Your task to perform on an android device: Open internet settings Image 0: 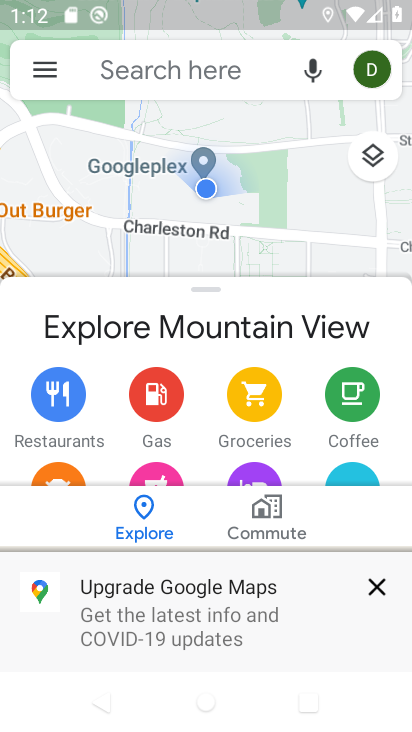
Step 0: press home button
Your task to perform on an android device: Open internet settings Image 1: 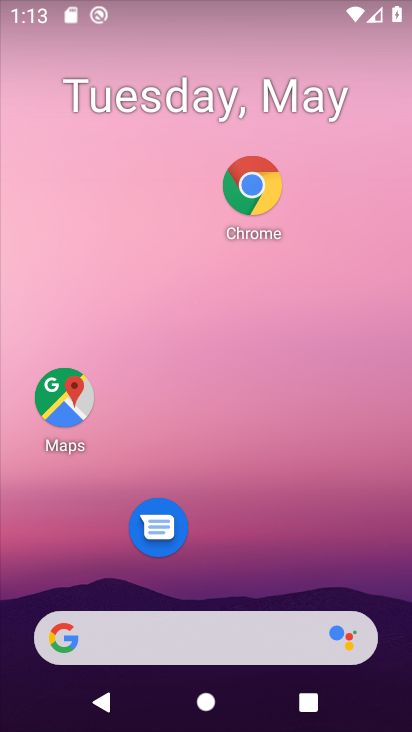
Step 1: drag from (231, 498) to (192, 110)
Your task to perform on an android device: Open internet settings Image 2: 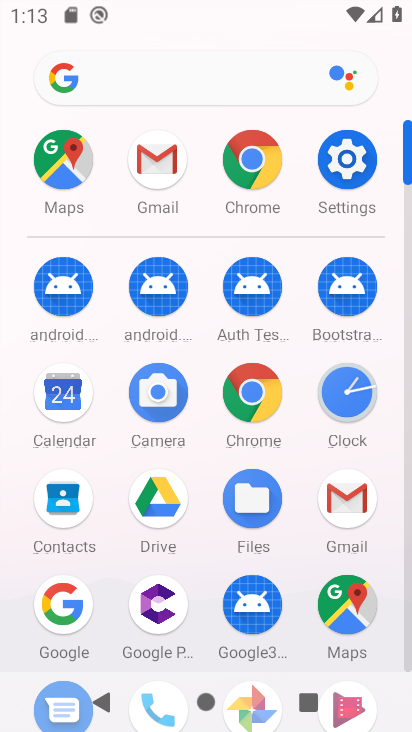
Step 2: click (344, 165)
Your task to perform on an android device: Open internet settings Image 3: 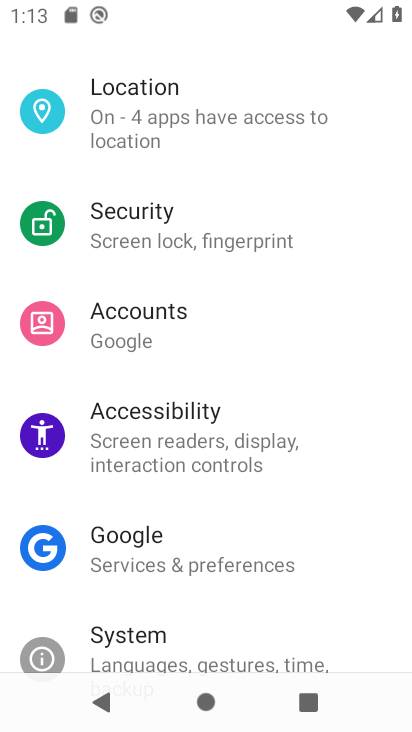
Step 3: drag from (185, 171) to (182, 708)
Your task to perform on an android device: Open internet settings Image 4: 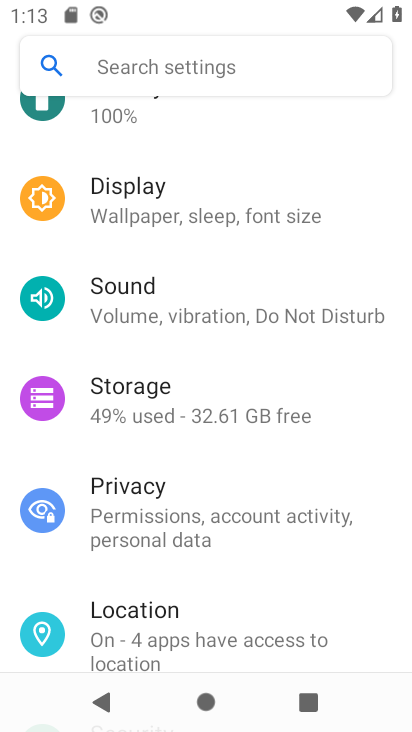
Step 4: drag from (172, 248) to (187, 476)
Your task to perform on an android device: Open internet settings Image 5: 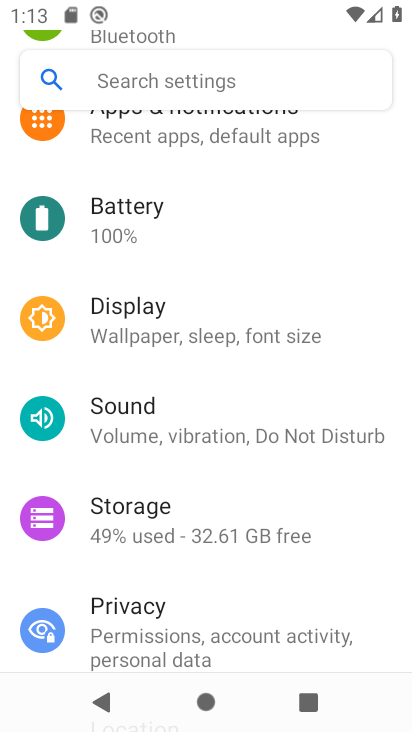
Step 5: drag from (153, 246) to (166, 579)
Your task to perform on an android device: Open internet settings Image 6: 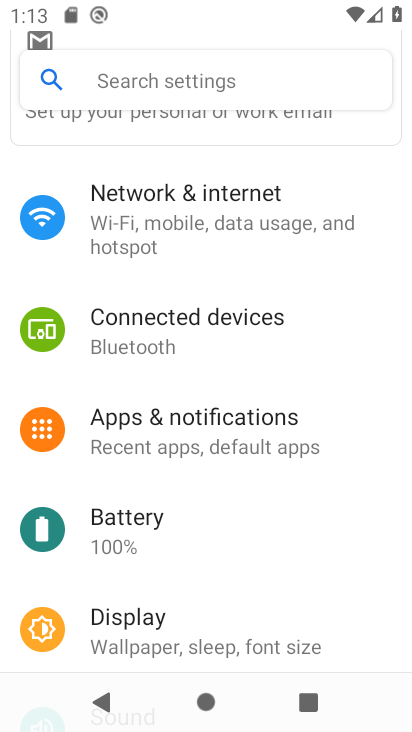
Step 6: click (175, 205)
Your task to perform on an android device: Open internet settings Image 7: 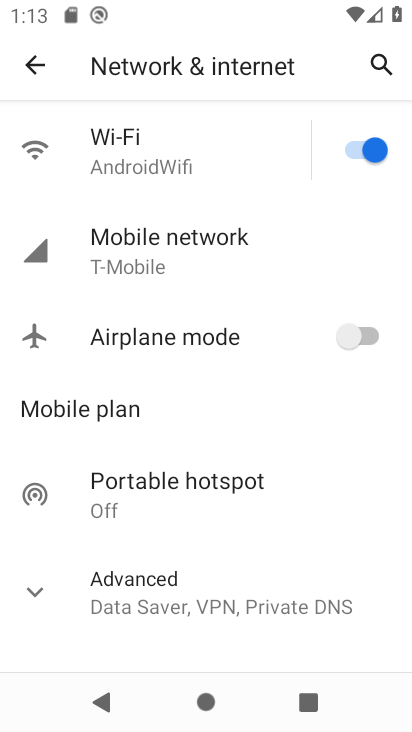
Step 7: click (183, 232)
Your task to perform on an android device: Open internet settings Image 8: 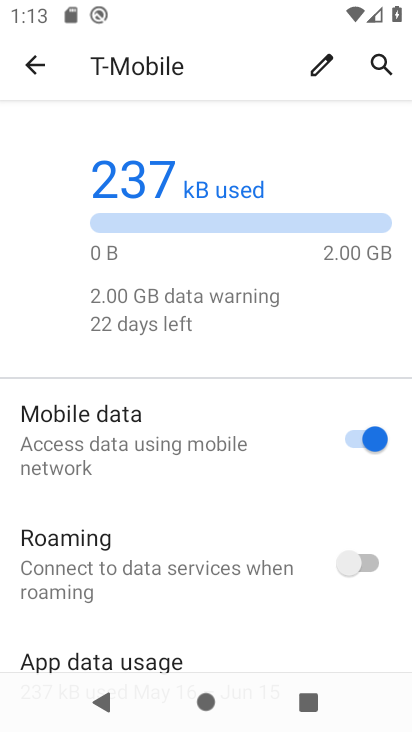
Step 8: task complete